Your task to perform on an android device: turn notification dots off Image 0: 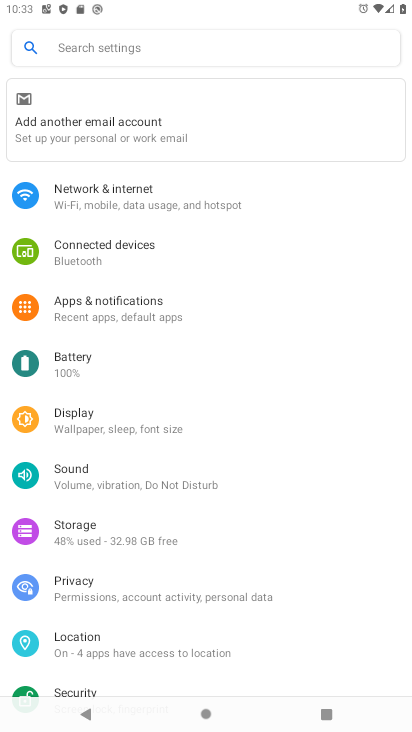
Step 0: click (132, 302)
Your task to perform on an android device: turn notification dots off Image 1: 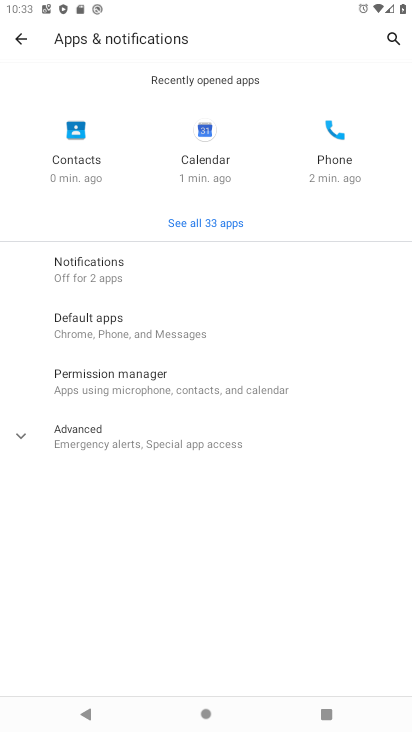
Step 1: click (119, 437)
Your task to perform on an android device: turn notification dots off Image 2: 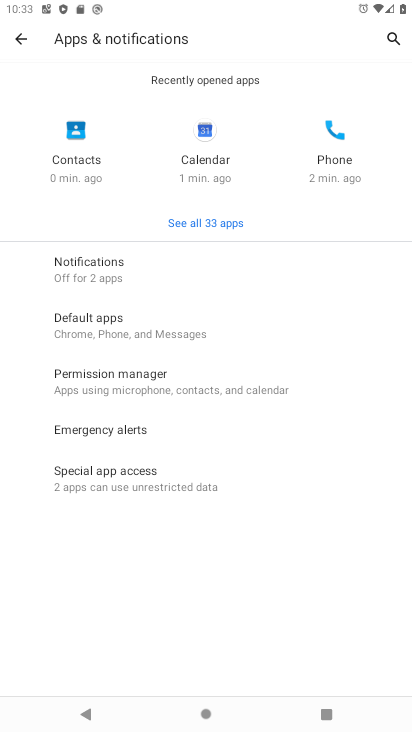
Step 2: click (115, 273)
Your task to perform on an android device: turn notification dots off Image 3: 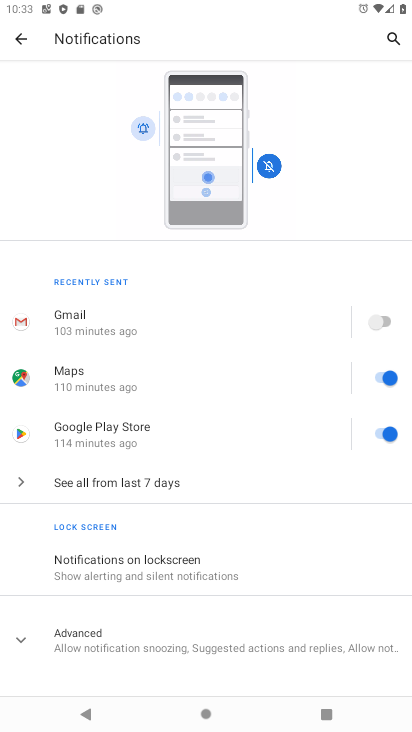
Step 3: drag from (235, 667) to (247, 433)
Your task to perform on an android device: turn notification dots off Image 4: 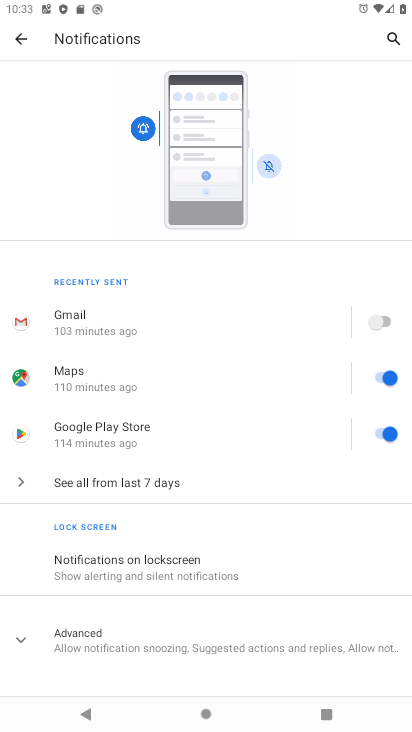
Step 4: click (147, 651)
Your task to perform on an android device: turn notification dots off Image 5: 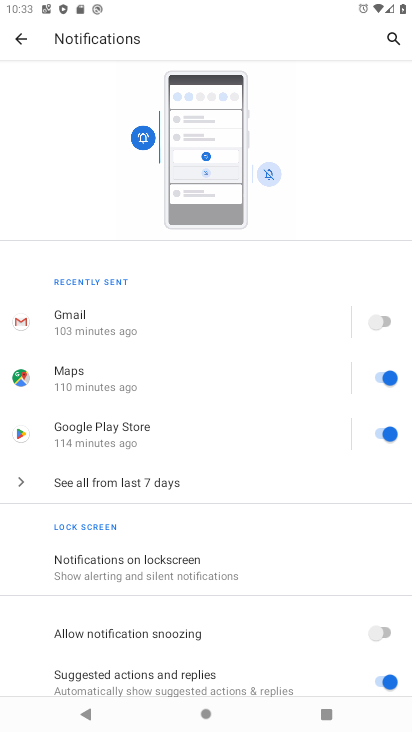
Step 5: click (278, 203)
Your task to perform on an android device: turn notification dots off Image 6: 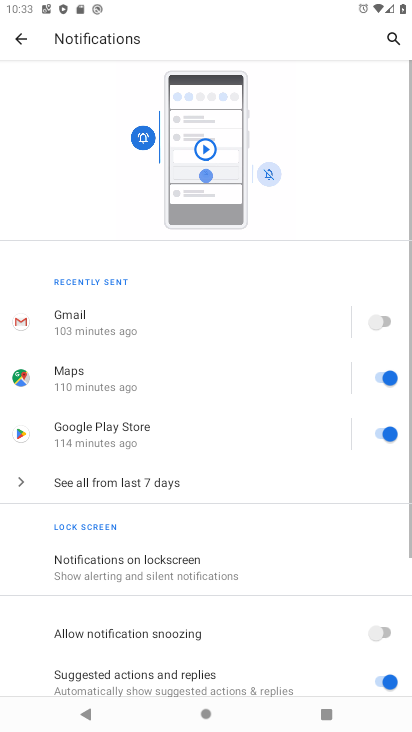
Step 6: drag from (16, 637) to (53, 409)
Your task to perform on an android device: turn notification dots off Image 7: 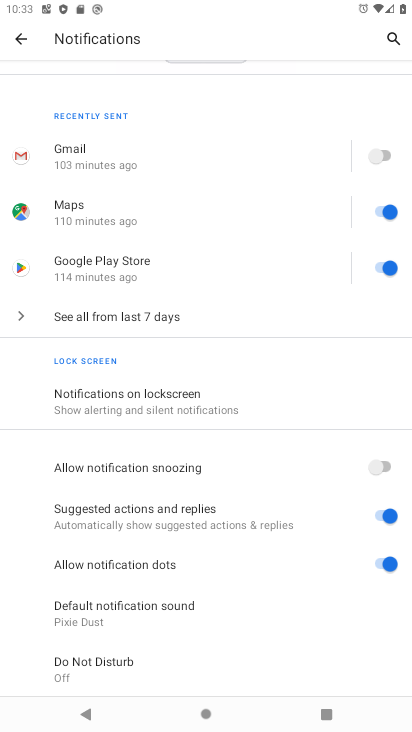
Step 7: click (398, 565)
Your task to perform on an android device: turn notification dots off Image 8: 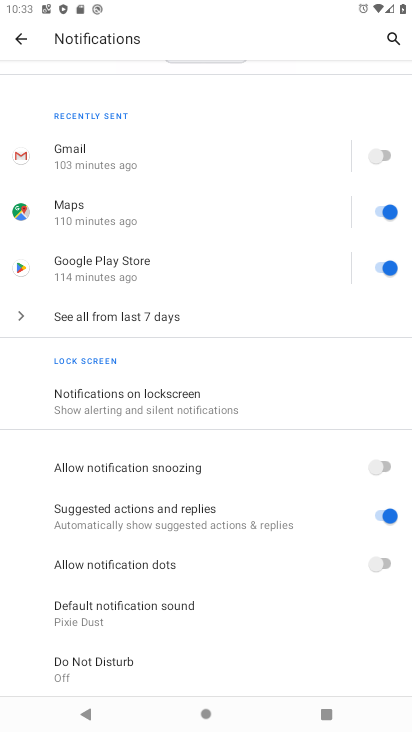
Step 8: task complete